Your task to perform on an android device: open app "LinkedIn" (install if not already installed) Image 0: 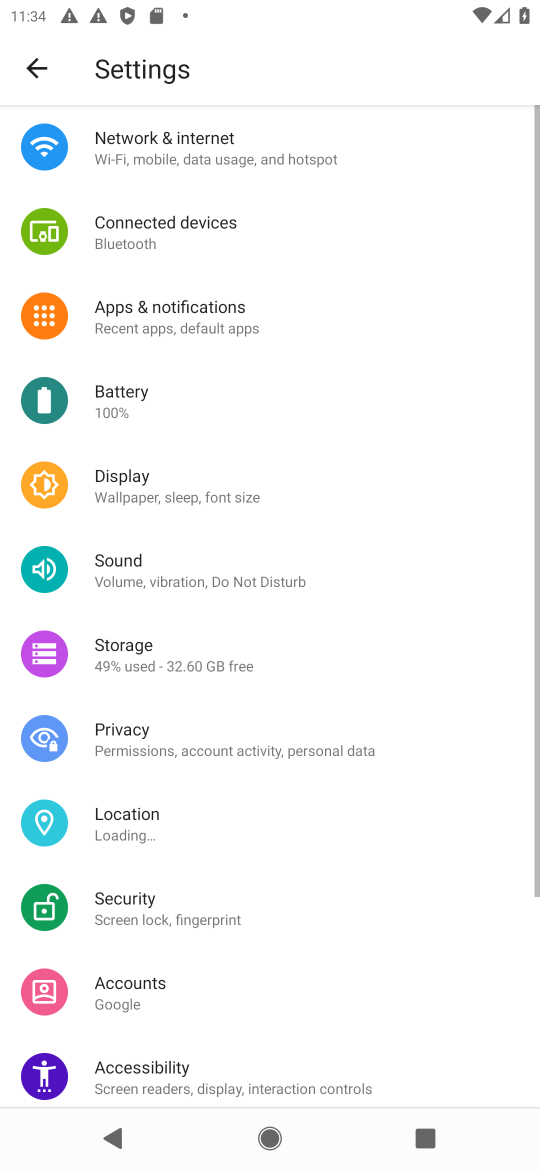
Step 0: press home button
Your task to perform on an android device: open app "LinkedIn" (install if not already installed) Image 1: 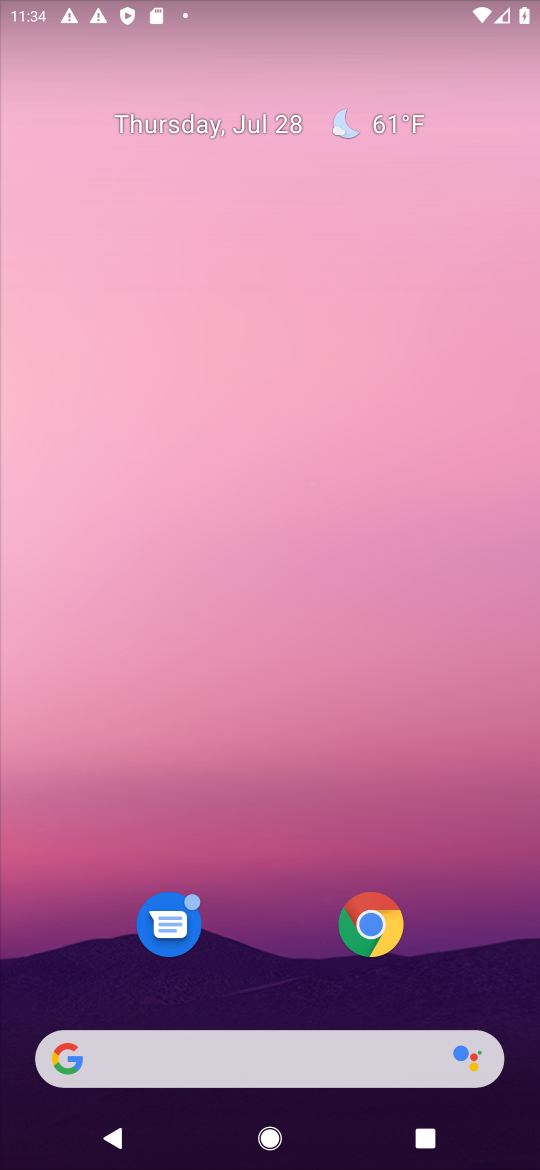
Step 1: drag from (233, 1033) to (112, 289)
Your task to perform on an android device: open app "LinkedIn" (install if not already installed) Image 2: 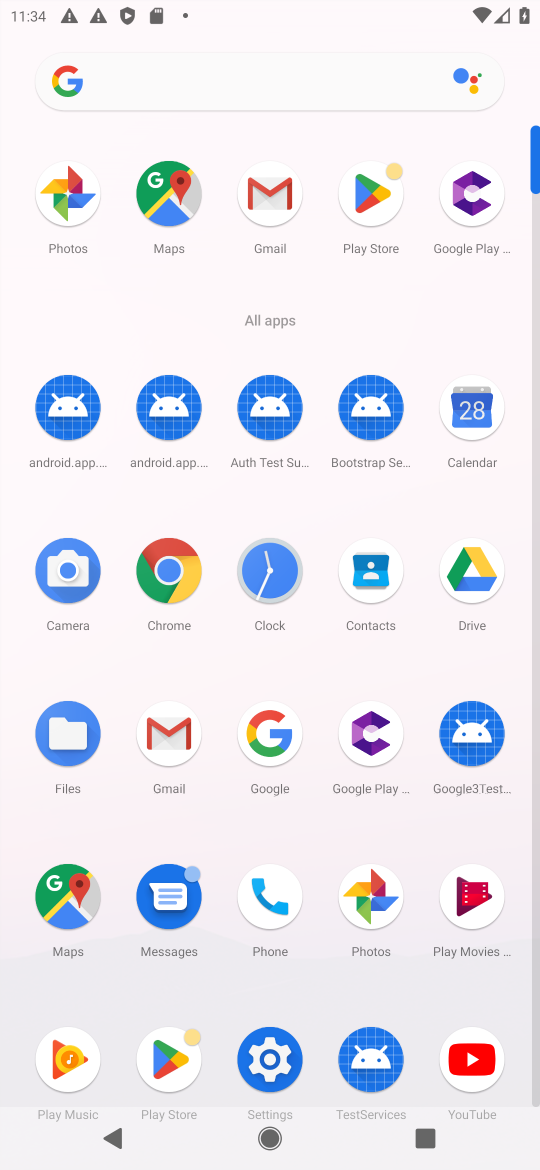
Step 2: click (176, 1067)
Your task to perform on an android device: open app "LinkedIn" (install if not already installed) Image 3: 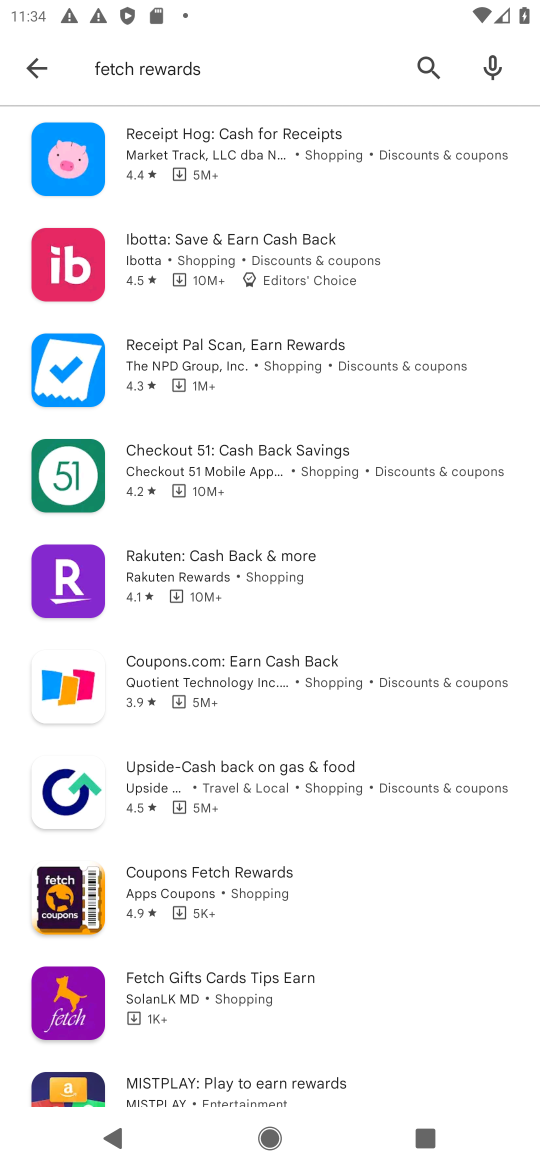
Step 3: click (30, 60)
Your task to perform on an android device: open app "LinkedIn" (install if not already installed) Image 4: 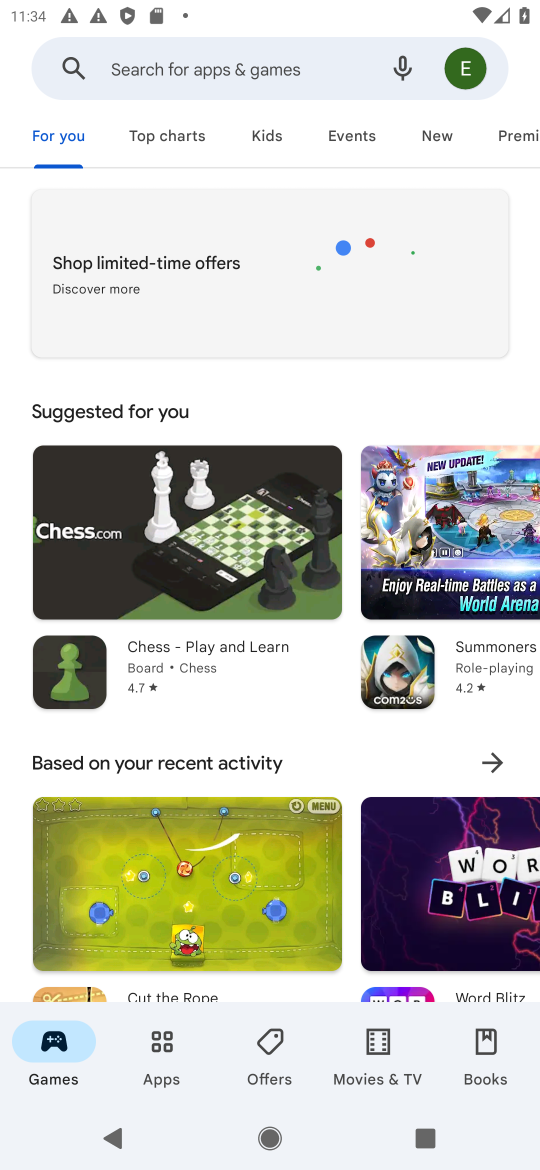
Step 4: click (168, 74)
Your task to perform on an android device: open app "LinkedIn" (install if not already installed) Image 5: 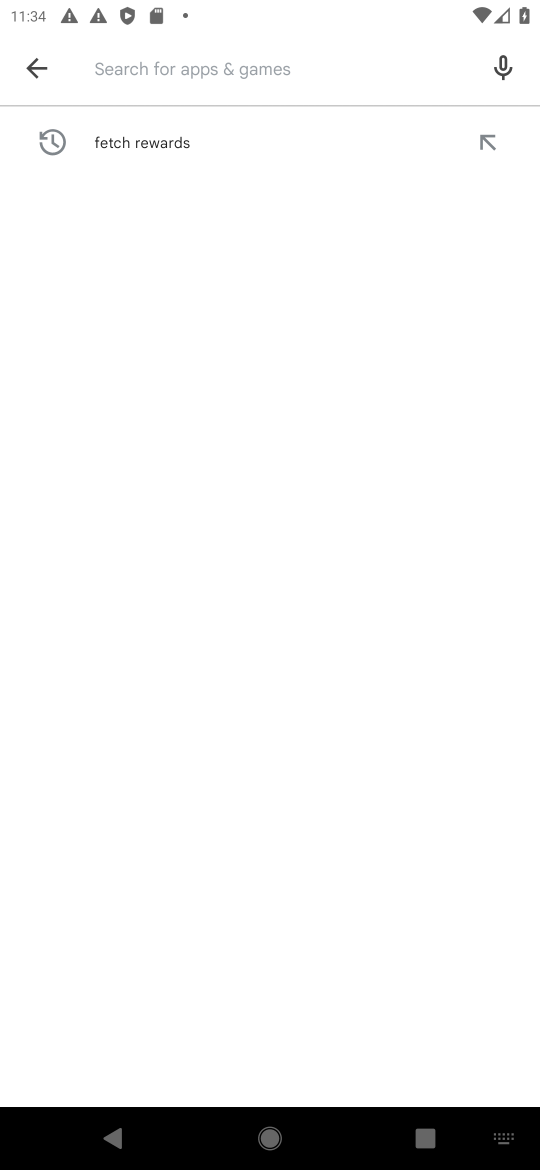
Step 5: type "LinkedIn"
Your task to perform on an android device: open app "LinkedIn" (install if not already installed) Image 6: 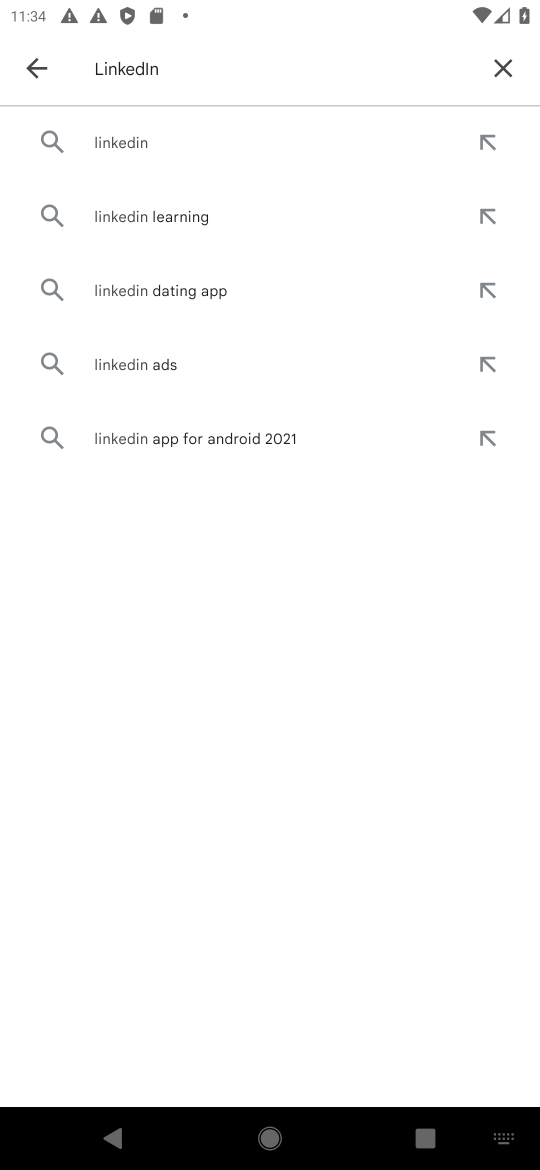
Step 6: click (101, 146)
Your task to perform on an android device: open app "LinkedIn" (install if not already installed) Image 7: 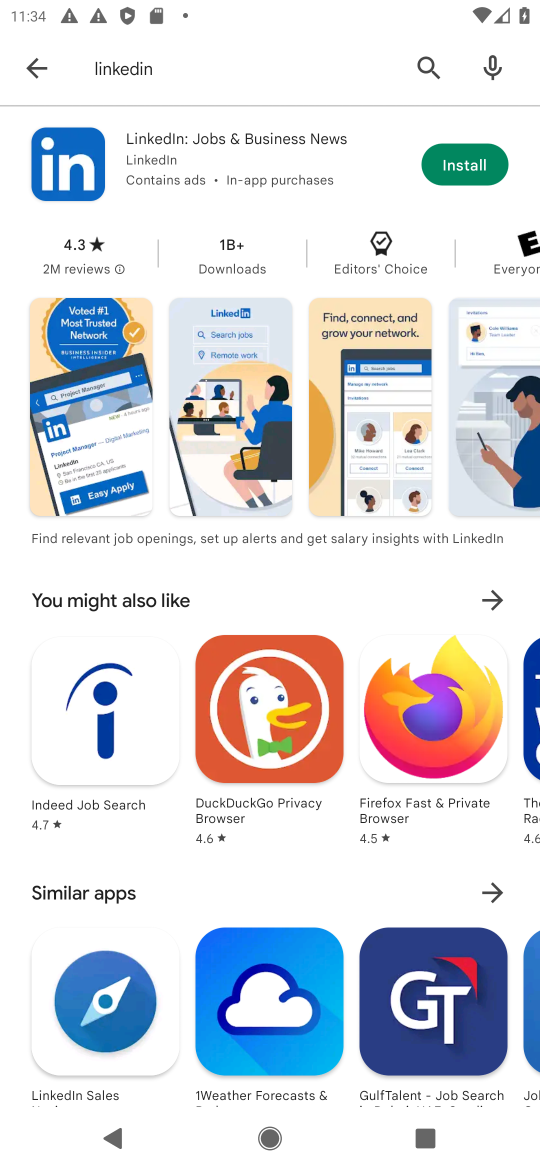
Step 7: click (458, 170)
Your task to perform on an android device: open app "LinkedIn" (install if not already installed) Image 8: 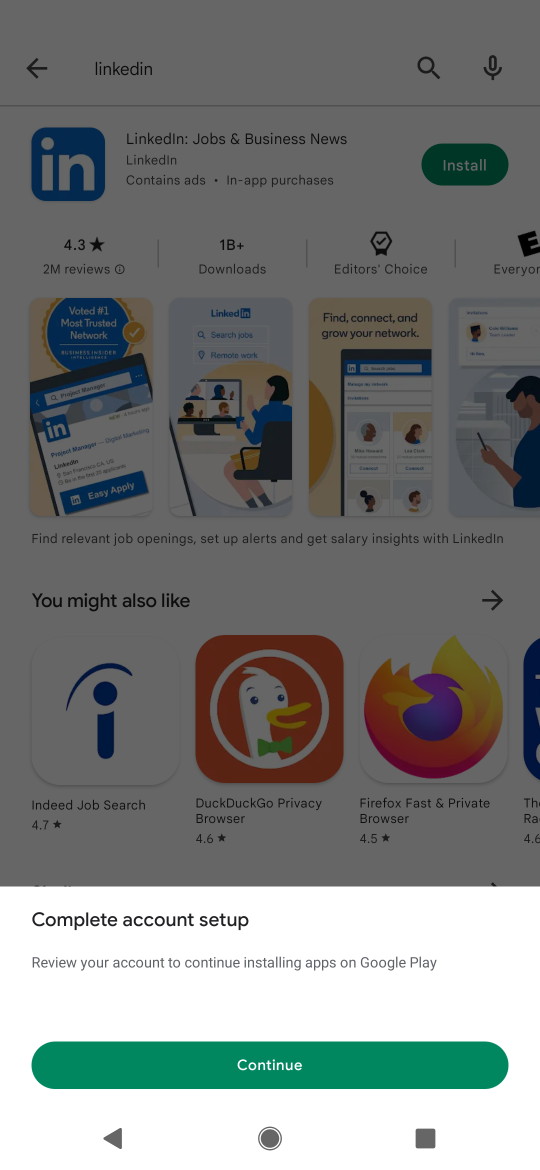
Step 8: click (265, 1073)
Your task to perform on an android device: open app "LinkedIn" (install if not already installed) Image 9: 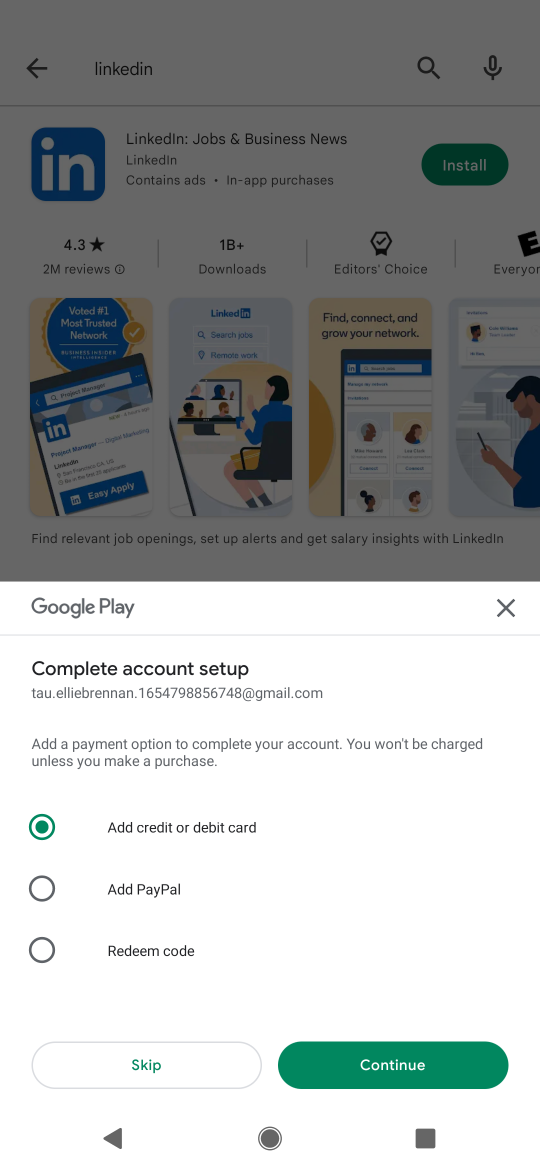
Step 9: click (159, 1074)
Your task to perform on an android device: open app "LinkedIn" (install if not already installed) Image 10: 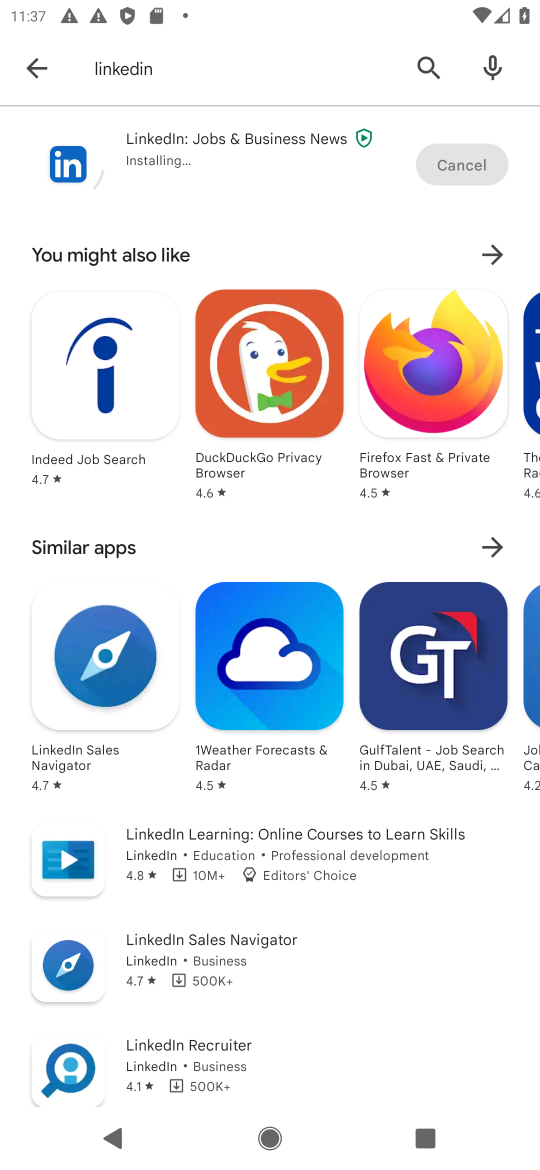
Step 10: task complete